Your task to perform on an android device: Open notification settings Image 0: 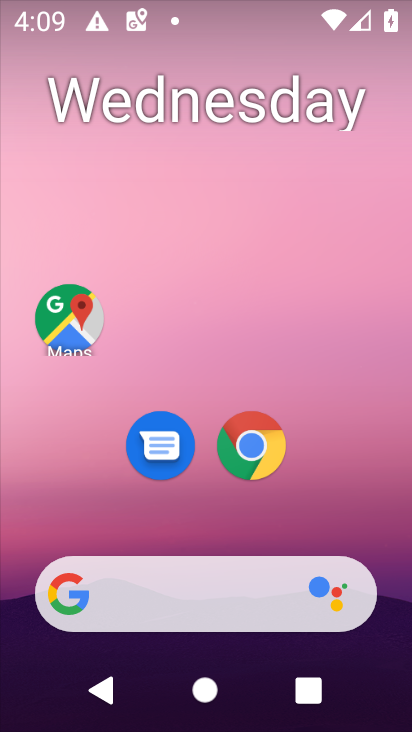
Step 0: drag from (350, 477) to (317, 0)
Your task to perform on an android device: Open notification settings Image 1: 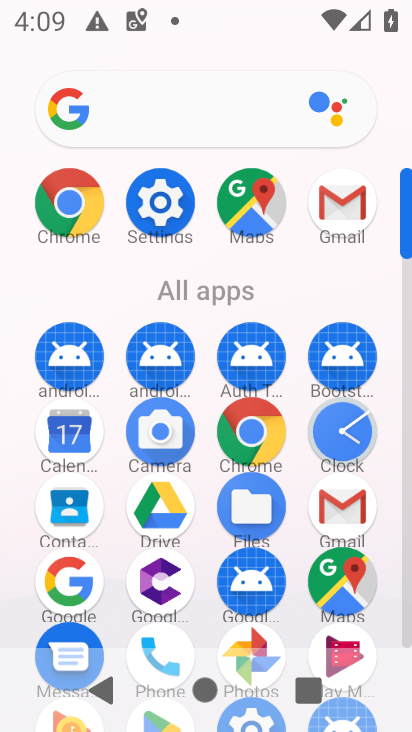
Step 1: drag from (291, 614) to (304, 213)
Your task to perform on an android device: Open notification settings Image 2: 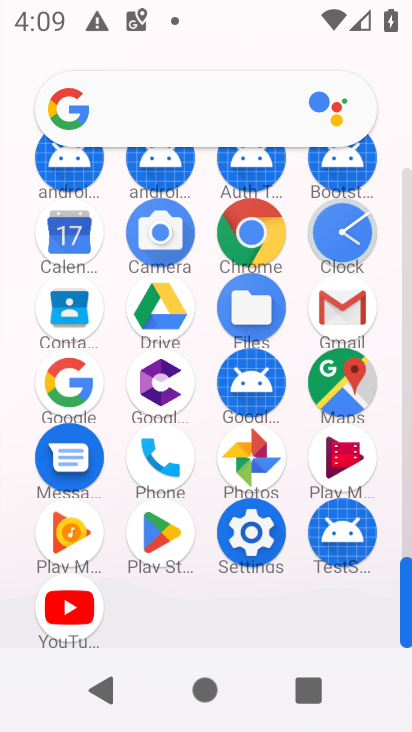
Step 2: click (260, 526)
Your task to perform on an android device: Open notification settings Image 3: 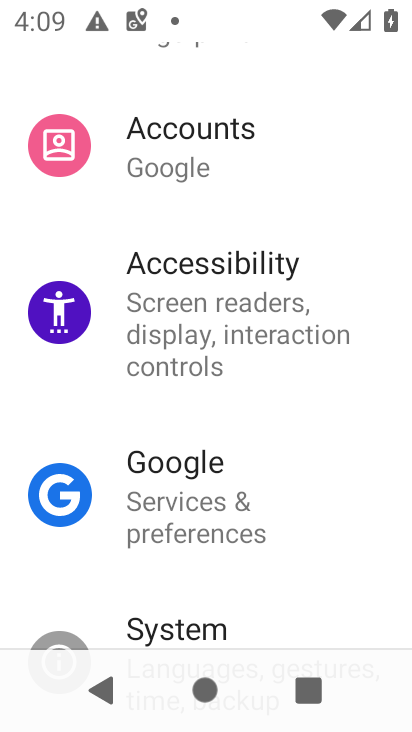
Step 3: drag from (279, 191) to (256, 591)
Your task to perform on an android device: Open notification settings Image 4: 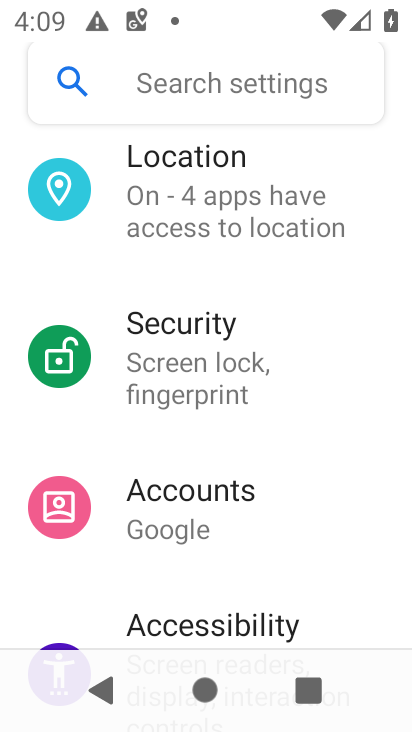
Step 4: drag from (278, 247) to (294, 628)
Your task to perform on an android device: Open notification settings Image 5: 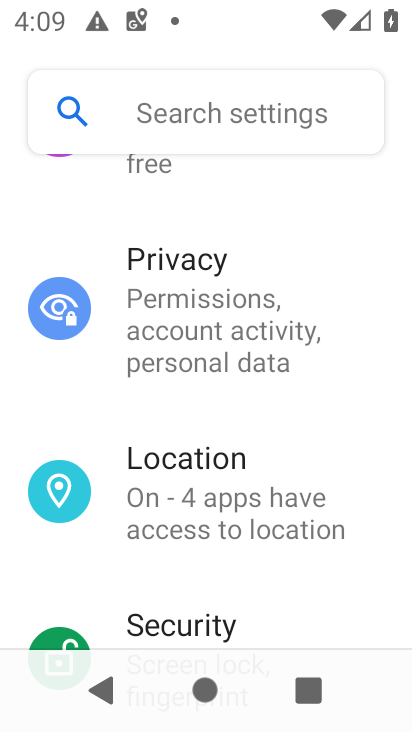
Step 5: drag from (286, 210) to (254, 604)
Your task to perform on an android device: Open notification settings Image 6: 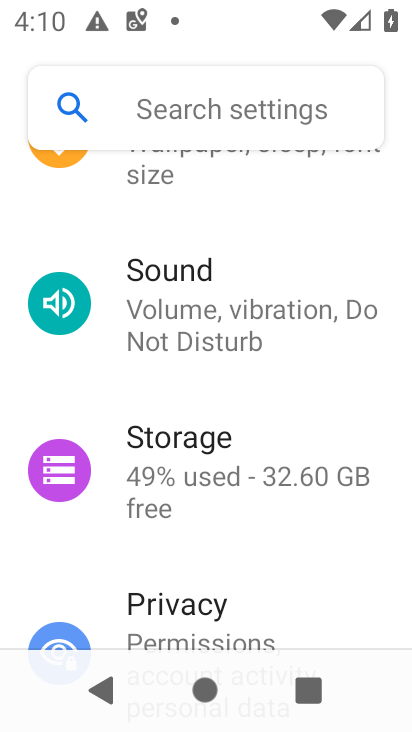
Step 6: drag from (257, 221) to (238, 604)
Your task to perform on an android device: Open notification settings Image 7: 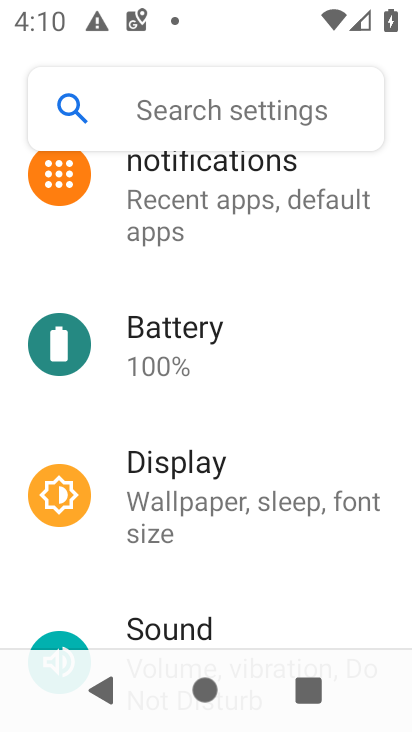
Step 7: click (230, 194)
Your task to perform on an android device: Open notification settings Image 8: 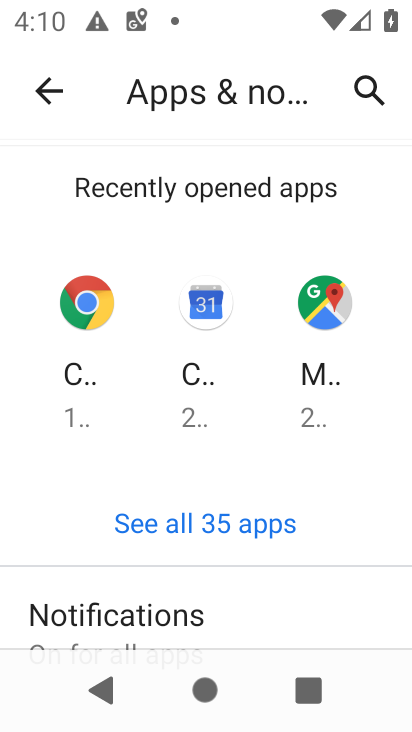
Step 8: click (130, 615)
Your task to perform on an android device: Open notification settings Image 9: 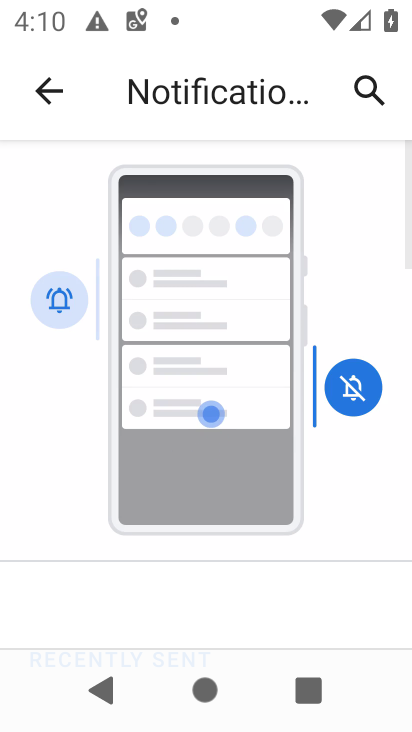
Step 9: task complete